Your task to perform on an android device: set the stopwatch Image 0: 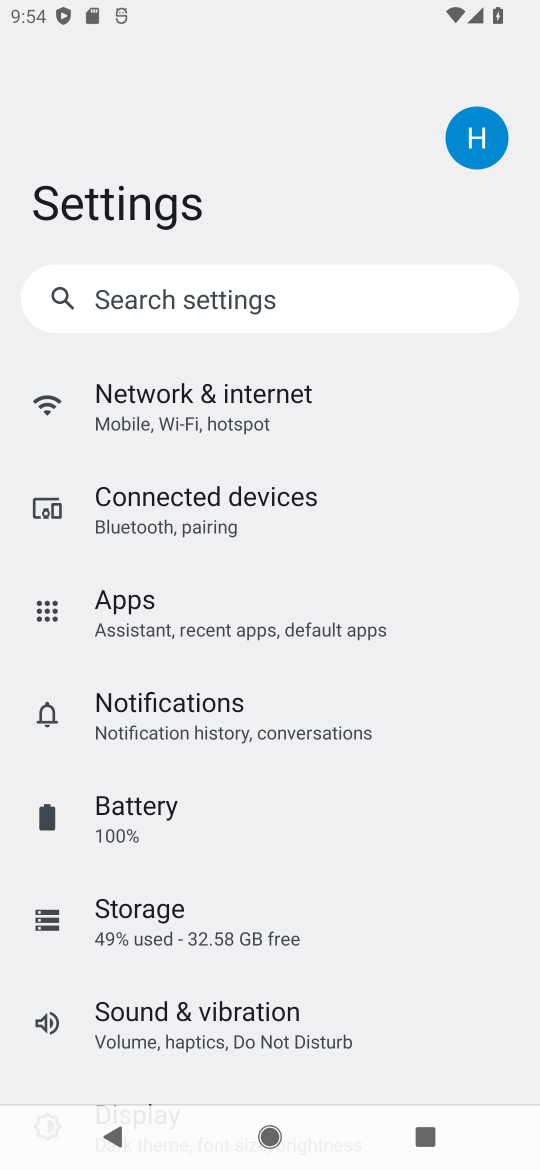
Step 0: press home button
Your task to perform on an android device: set the stopwatch Image 1: 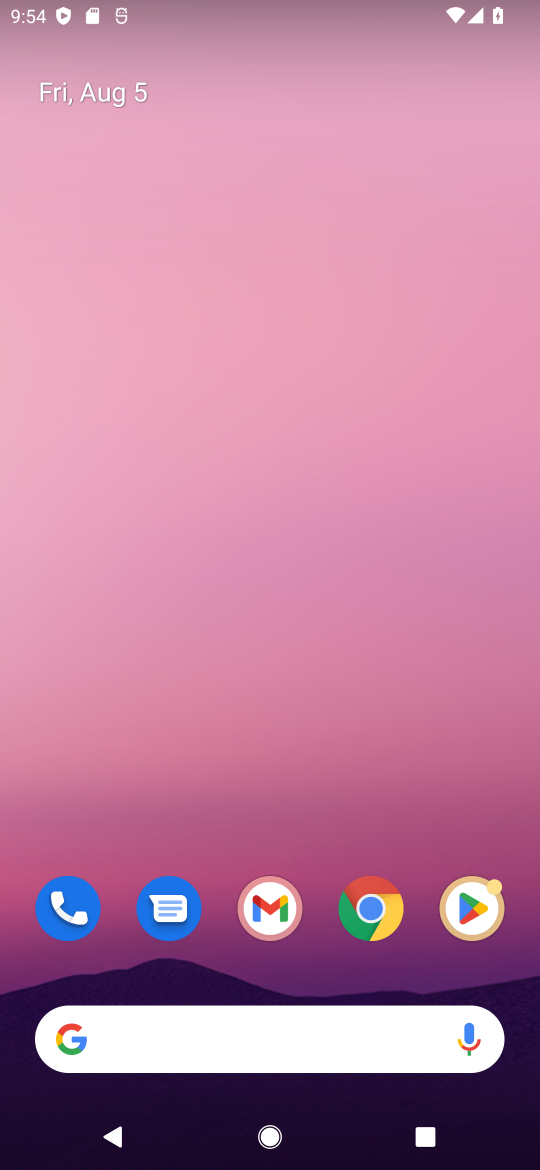
Step 1: drag from (311, 978) to (299, 141)
Your task to perform on an android device: set the stopwatch Image 2: 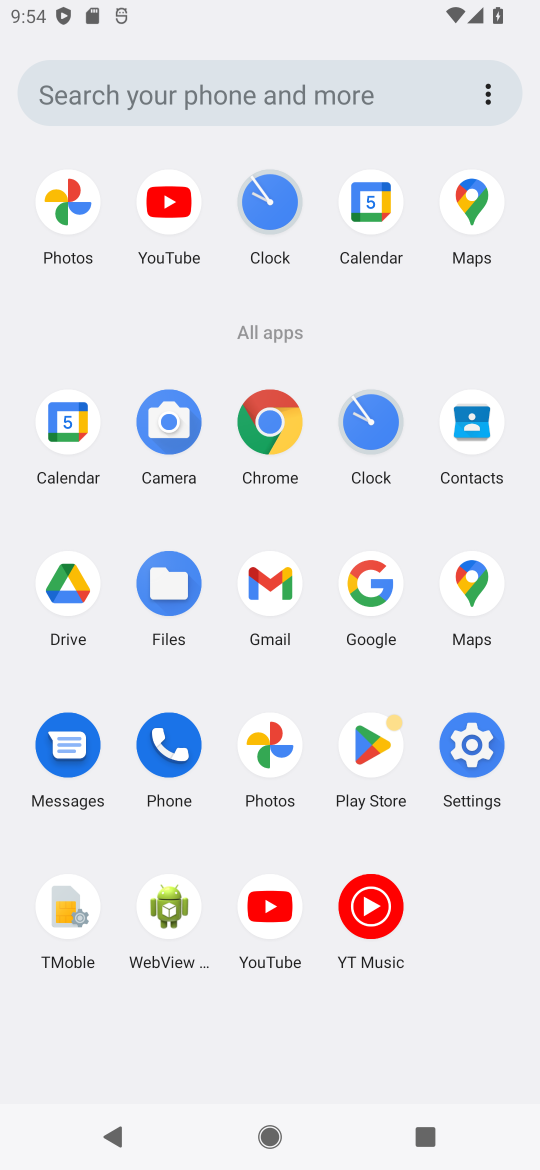
Step 2: click (296, 213)
Your task to perform on an android device: set the stopwatch Image 3: 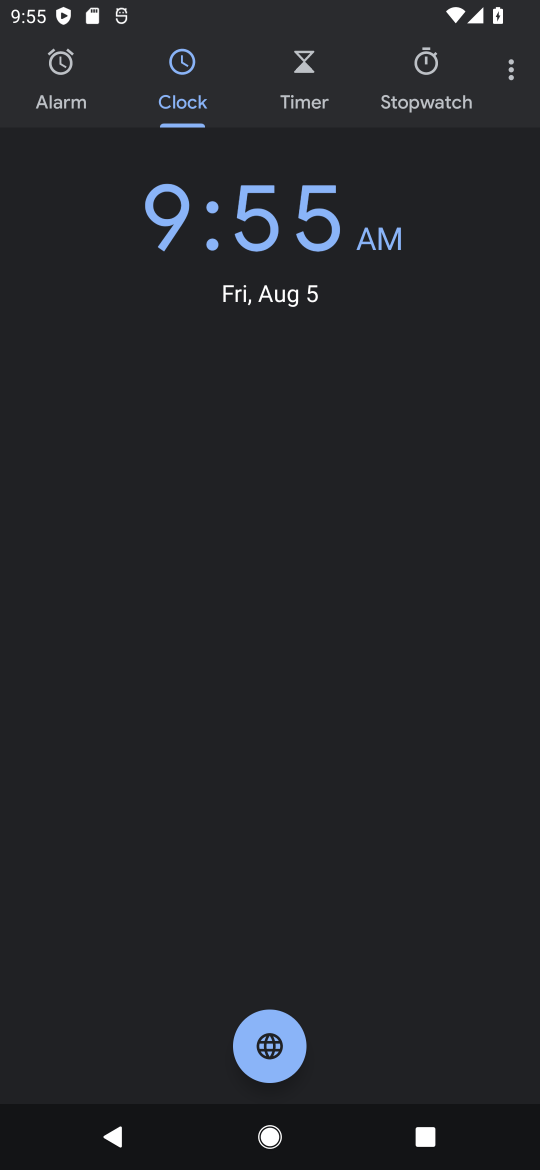
Step 3: click (406, 69)
Your task to perform on an android device: set the stopwatch Image 4: 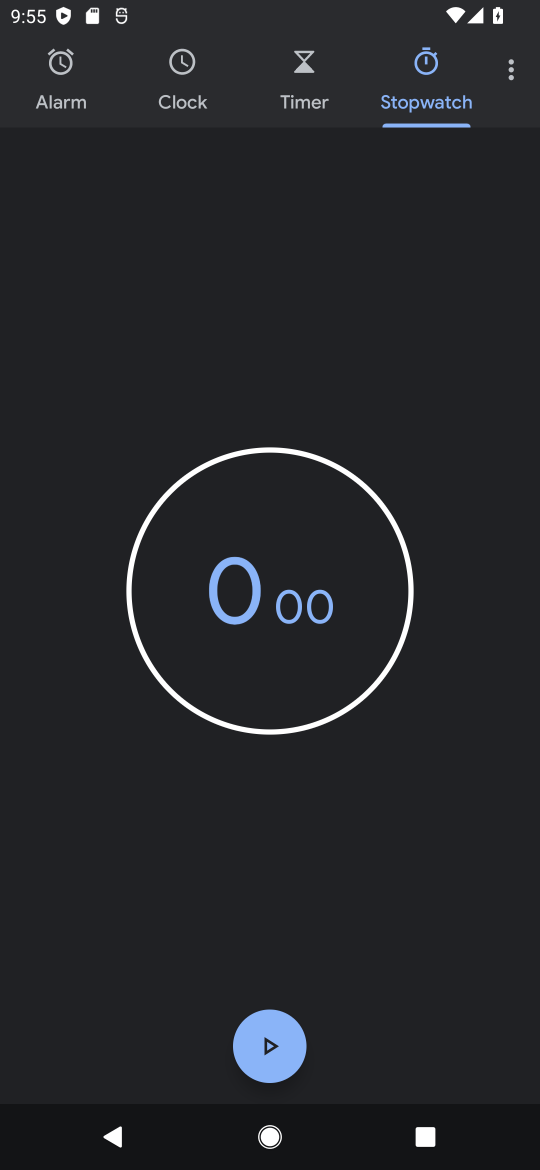
Step 4: task complete